Your task to perform on an android device: uninstall "Google Photos" Image 0: 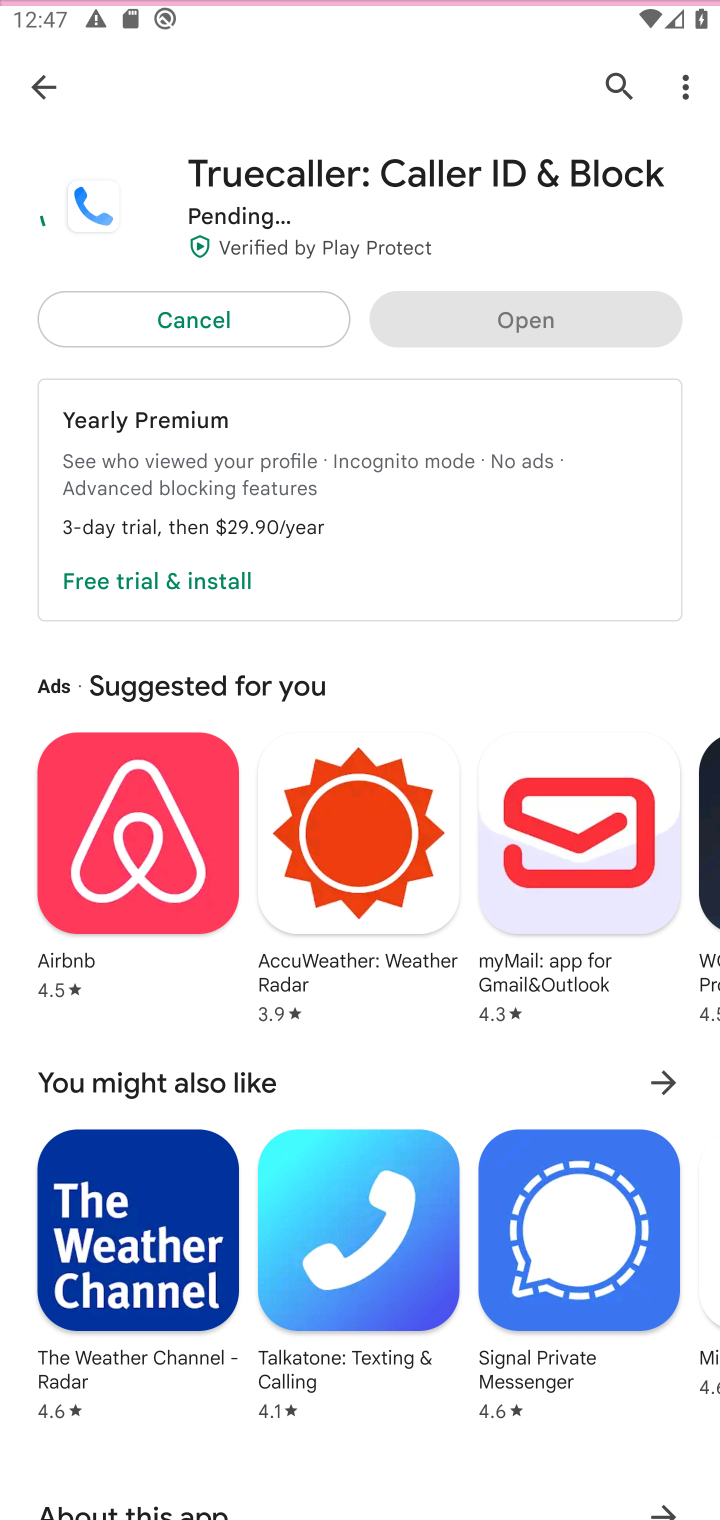
Step 0: press home button
Your task to perform on an android device: uninstall "Google Photos" Image 1: 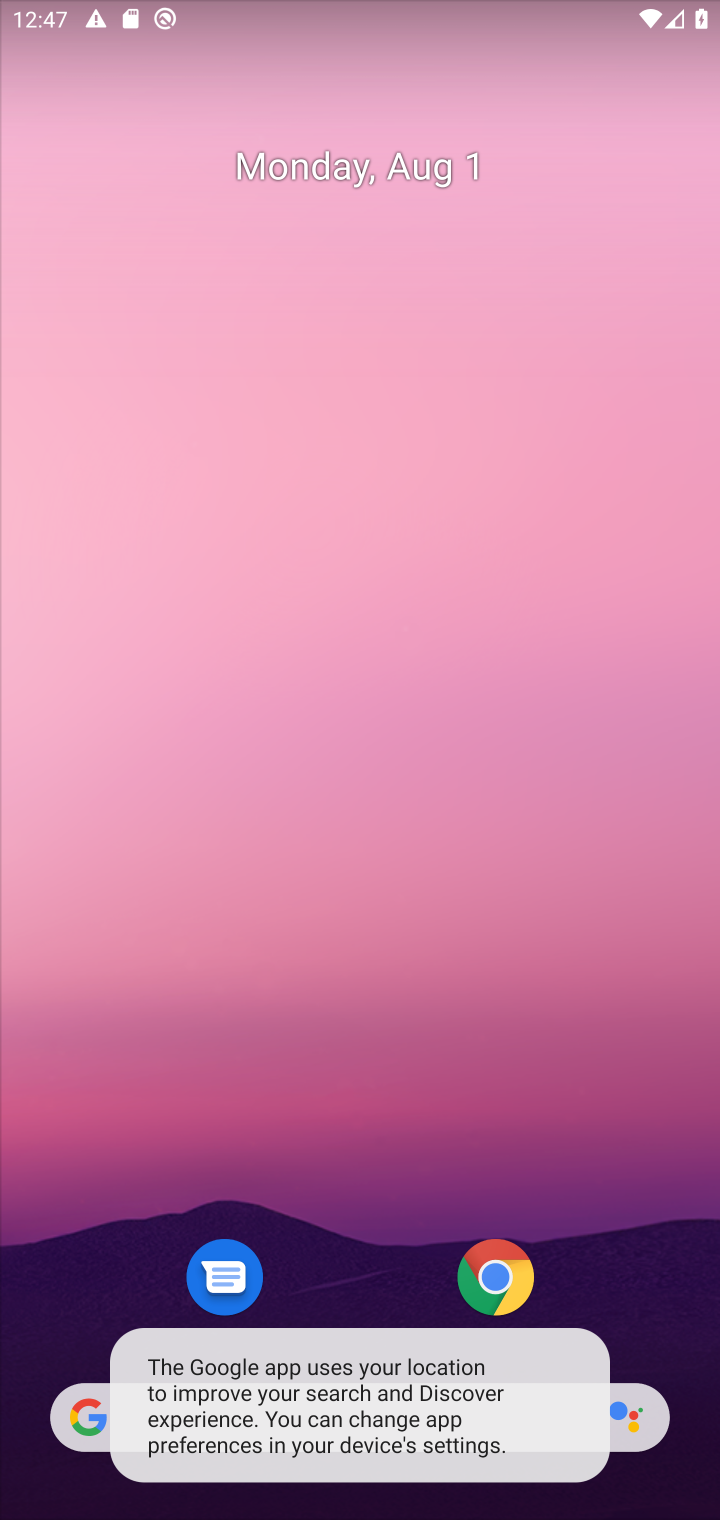
Step 1: drag from (365, 1080) to (363, 250)
Your task to perform on an android device: uninstall "Google Photos" Image 2: 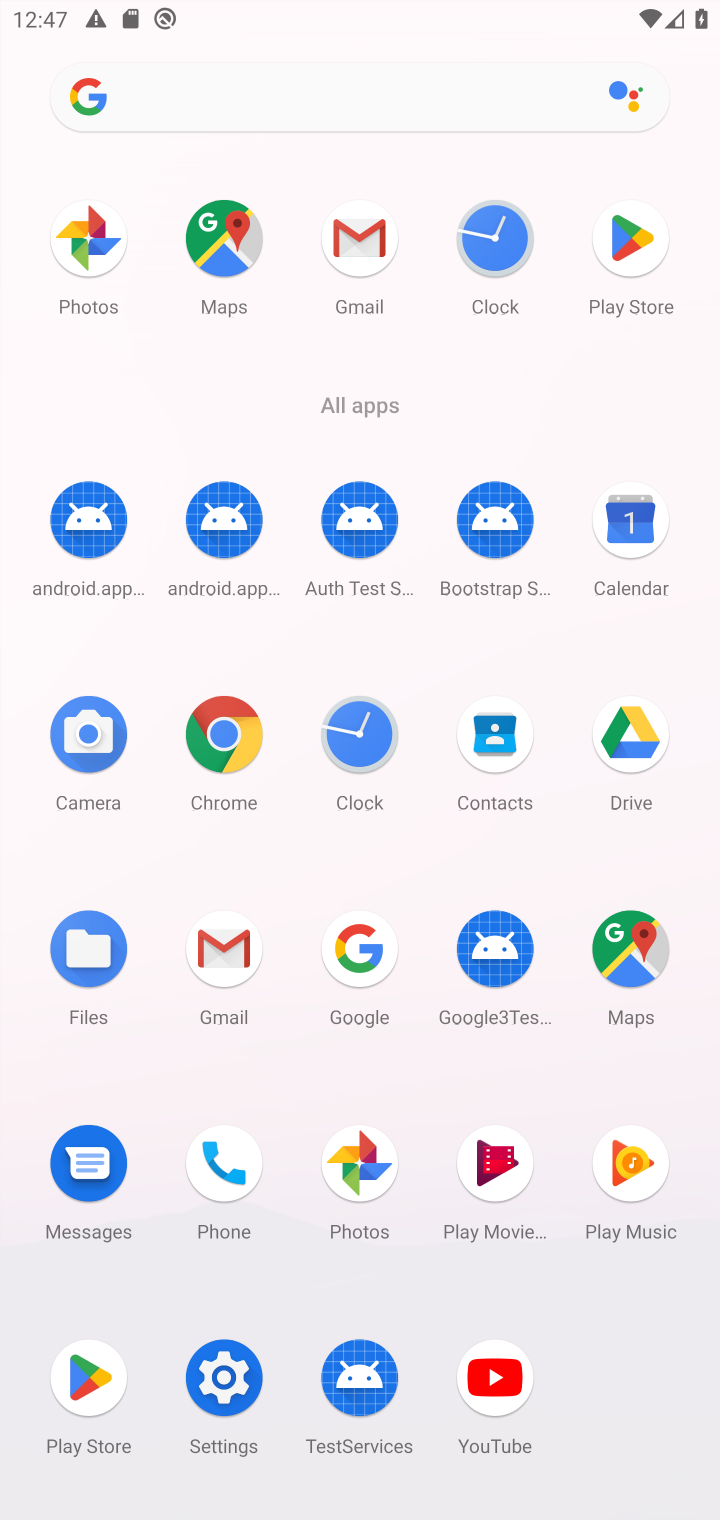
Step 2: click (613, 227)
Your task to perform on an android device: uninstall "Google Photos" Image 3: 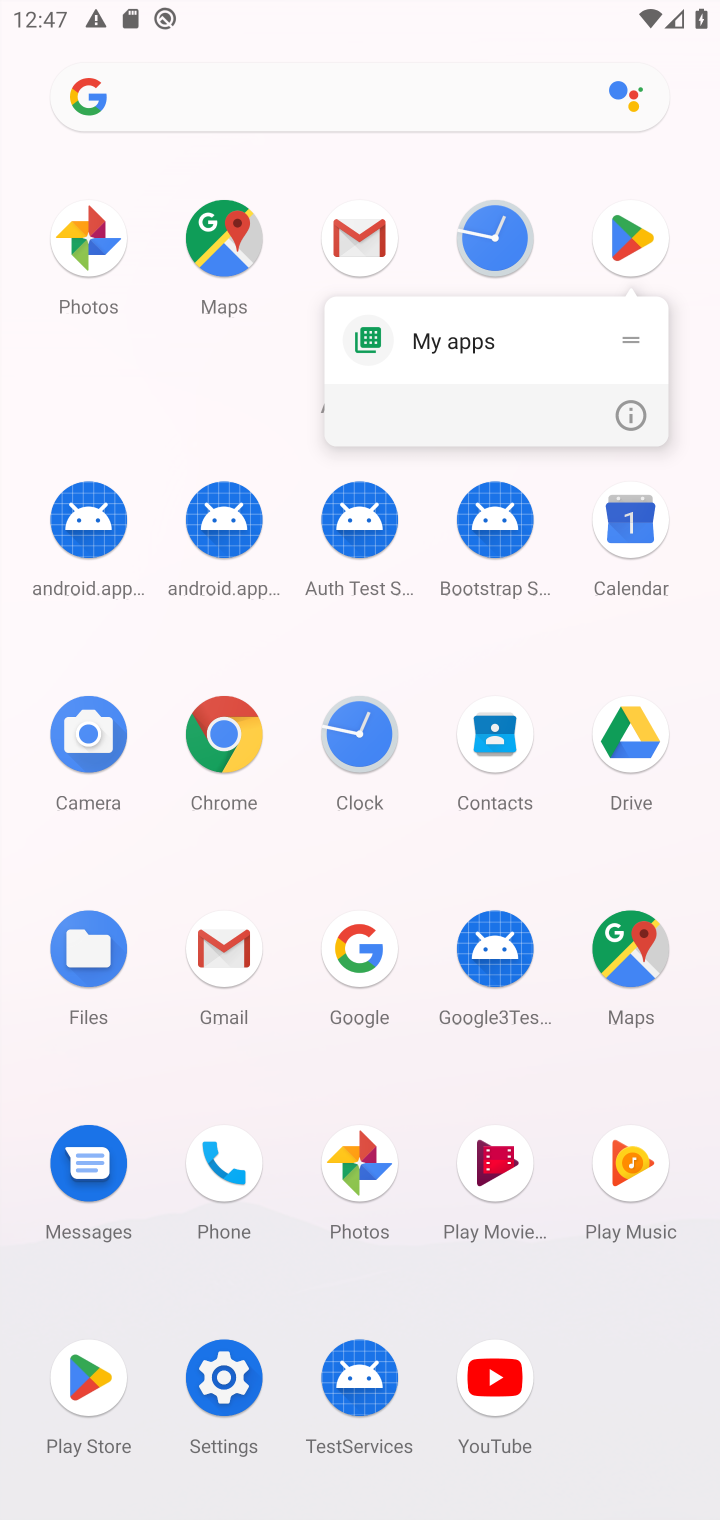
Step 3: click (614, 232)
Your task to perform on an android device: uninstall "Google Photos" Image 4: 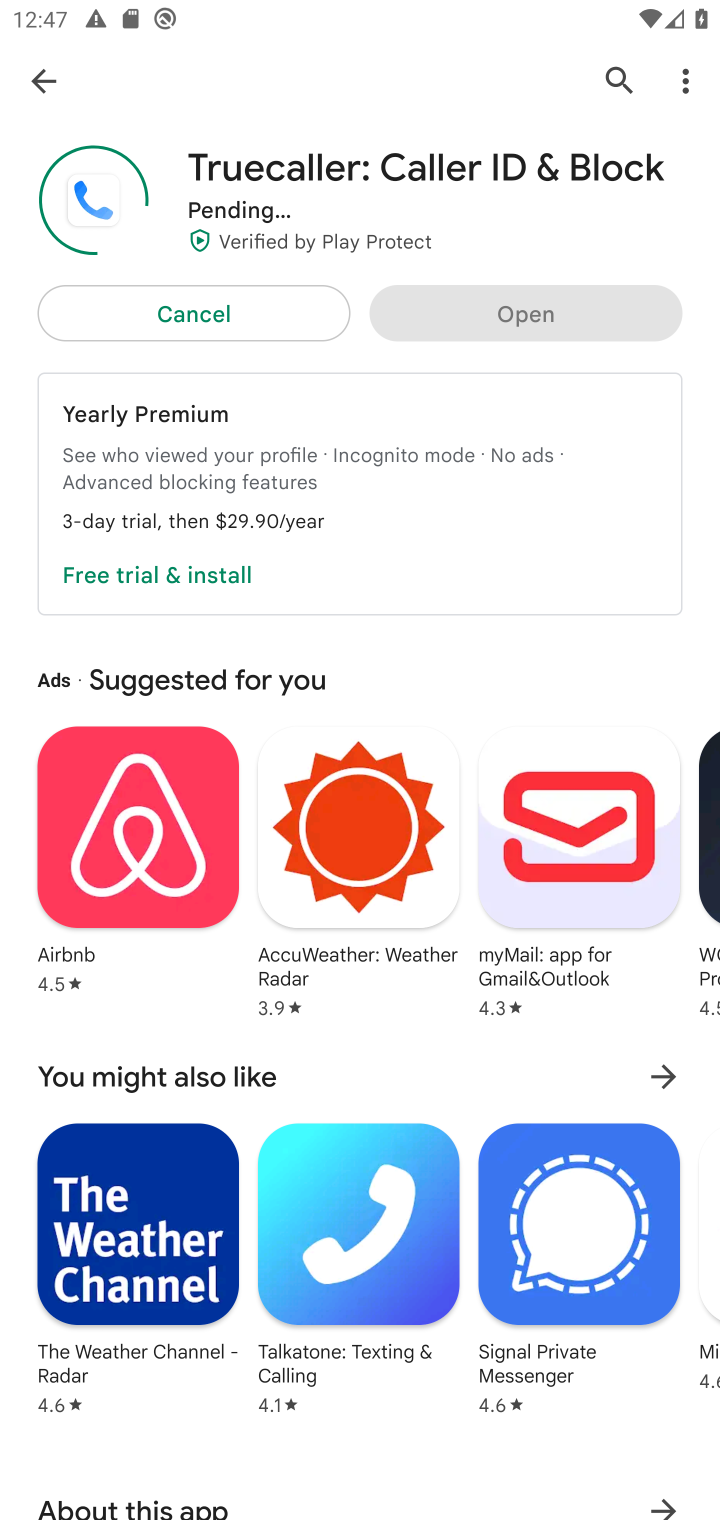
Step 4: click (611, 85)
Your task to perform on an android device: uninstall "Google Photos" Image 5: 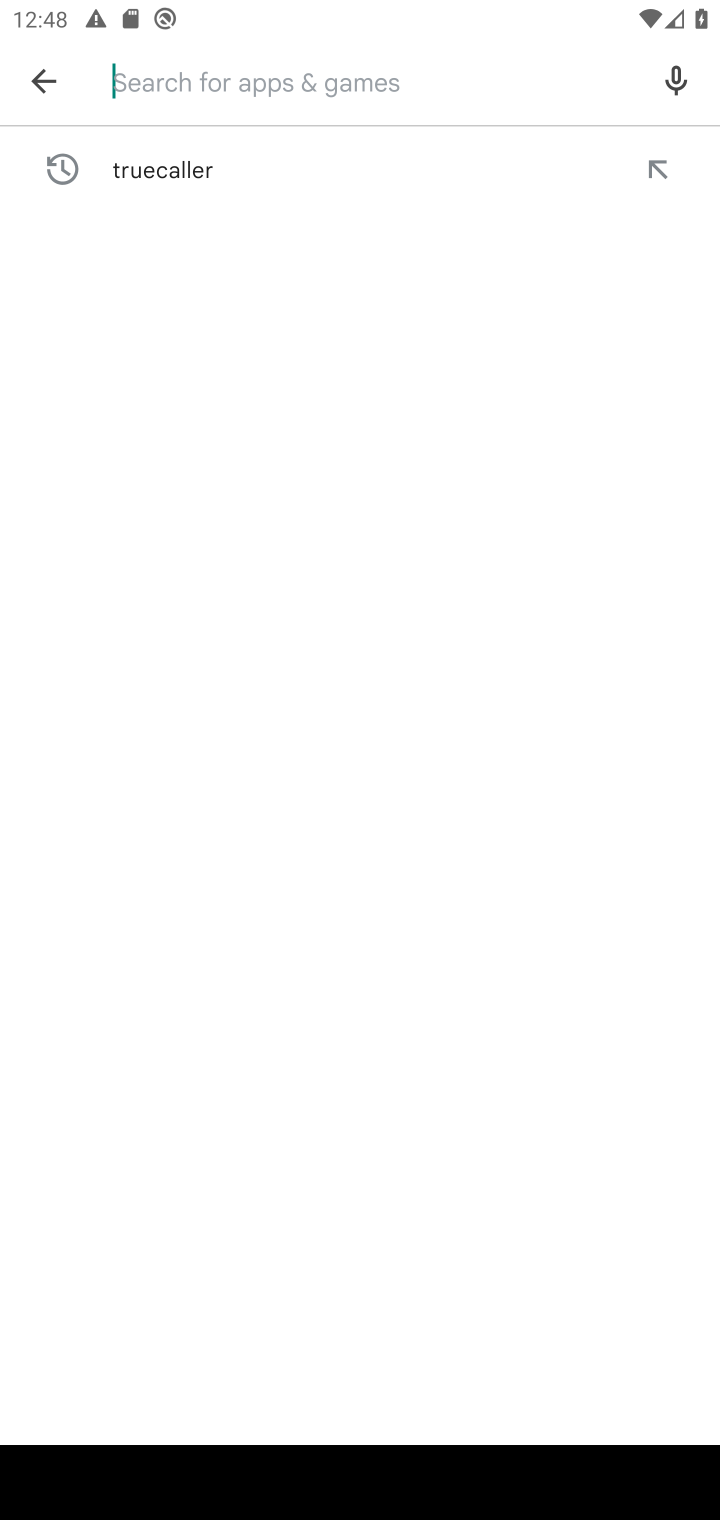
Step 5: type "google photos"
Your task to perform on an android device: uninstall "Google Photos" Image 6: 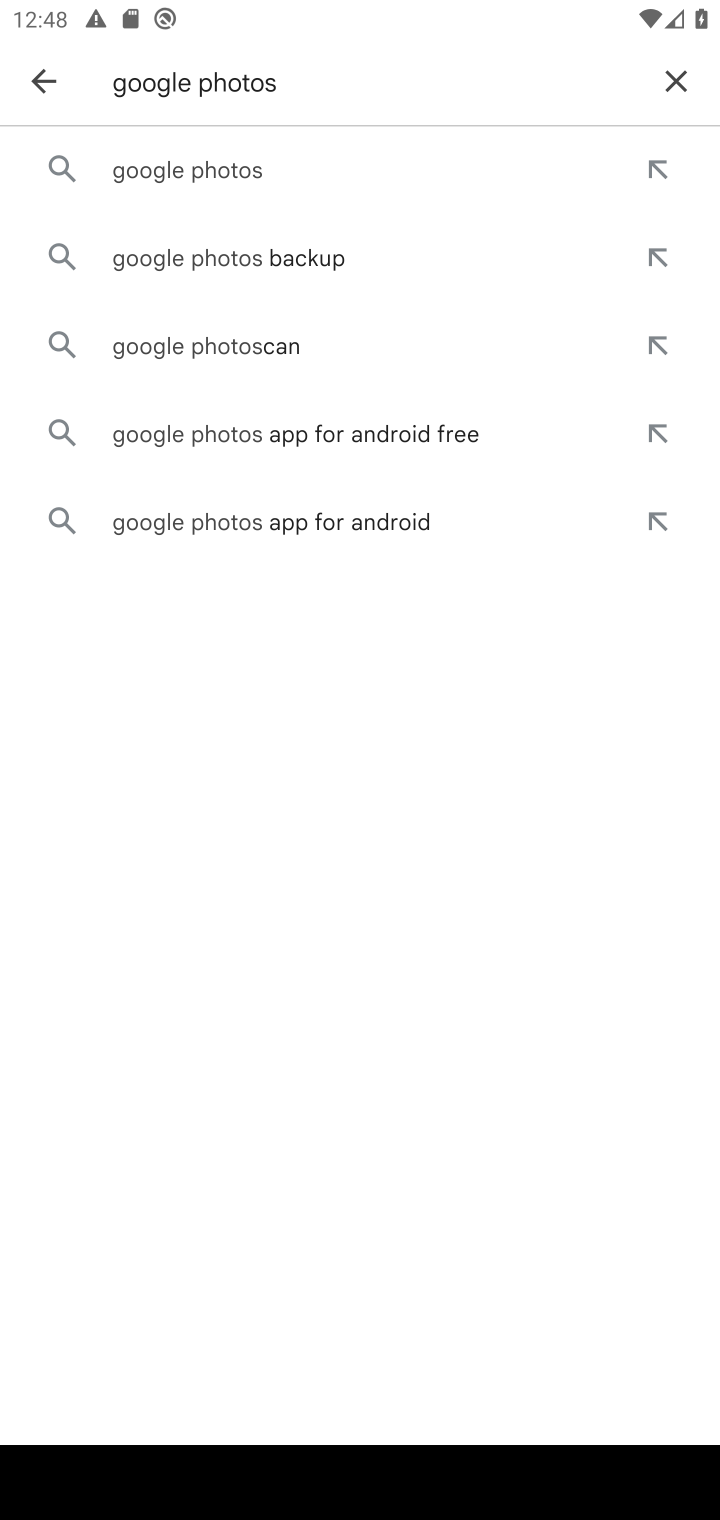
Step 6: click (301, 167)
Your task to perform on an android device: uninstall "Google Photos" Image 7: 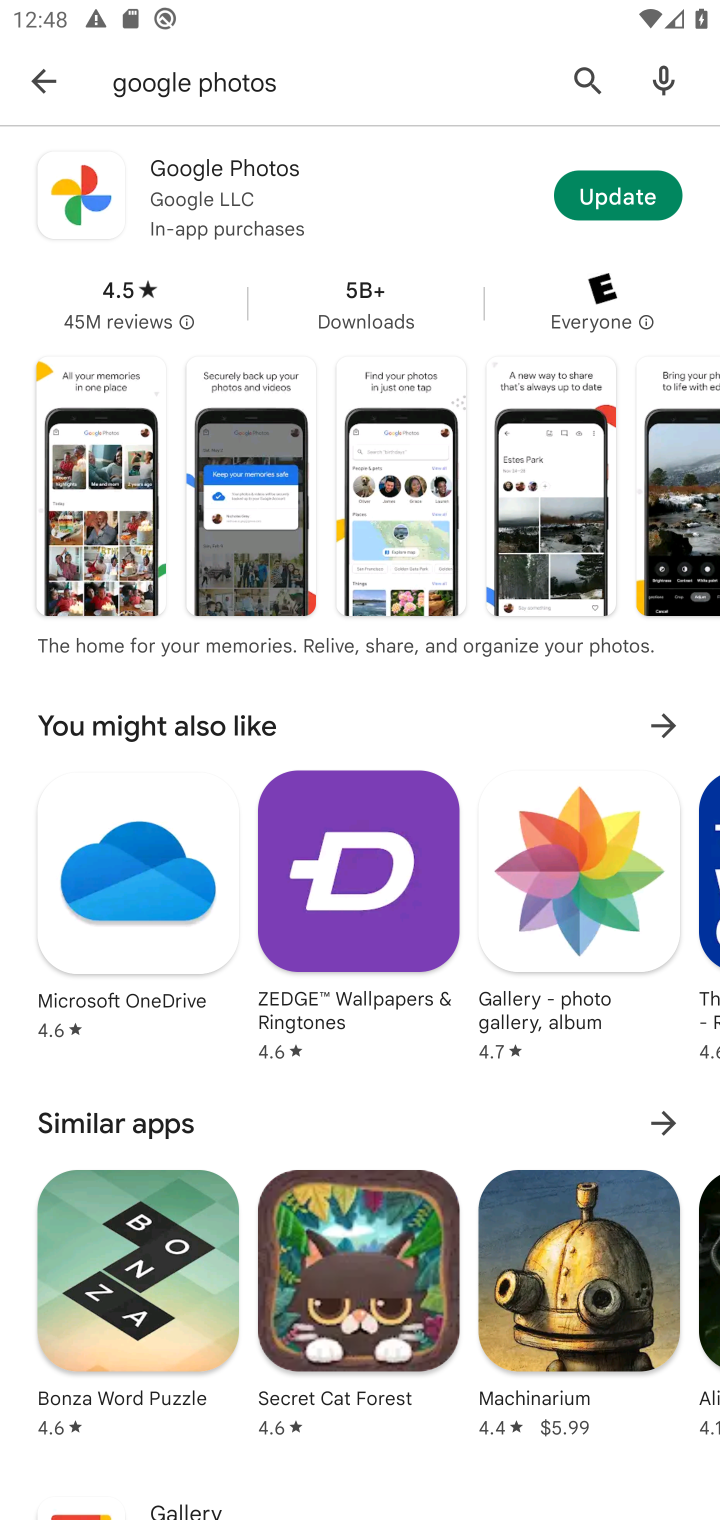
Step 7: click (268, 146)
Your task to perform on an android device: uninstall "Google Photos" Image 8: 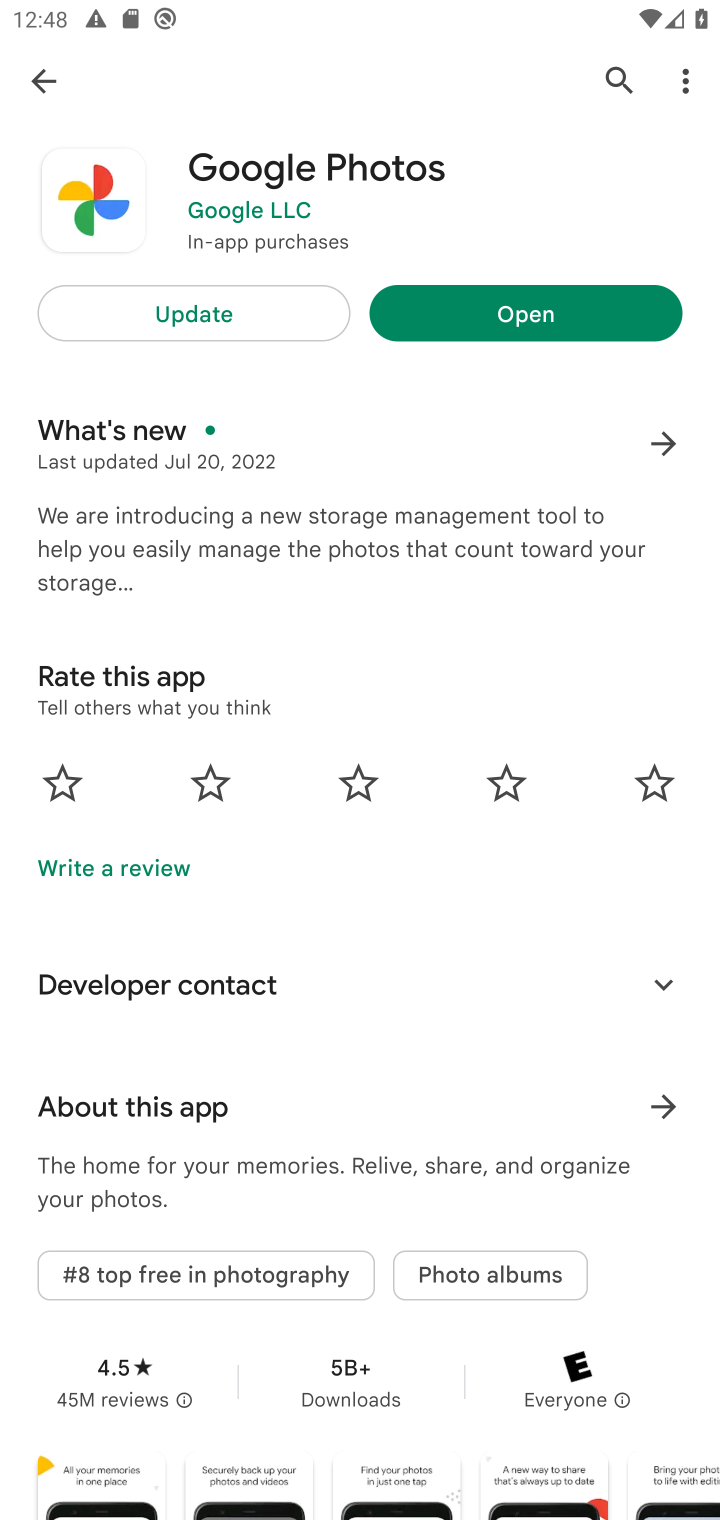
Step 8: task complete